Your task to perform on an android device: visit the assistant section in the google photos Image 0: 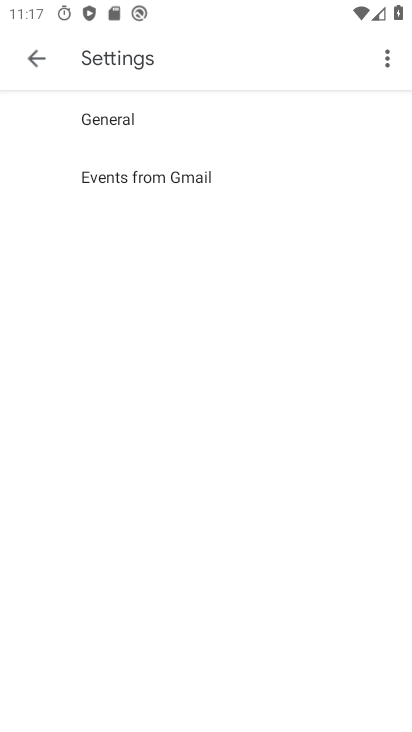
Step 0: press home button
Your task to perform on an android device: visit the assistant section in the google photos Image 1: 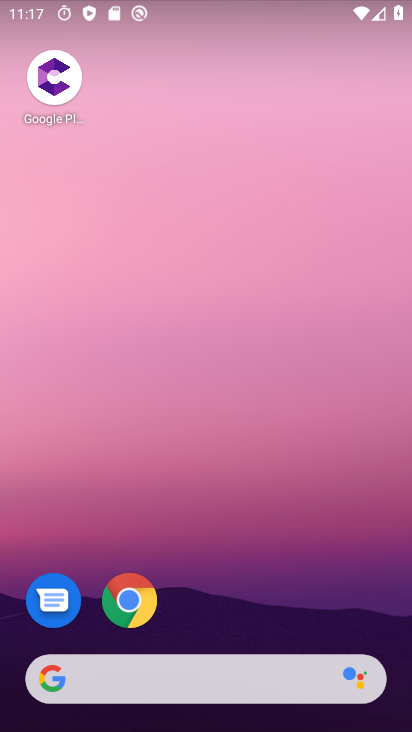
Step 1: drag from (271, 604) to (197, 5)
Your task to perform on an android device: visit the assistant section in the google photos Image 2: 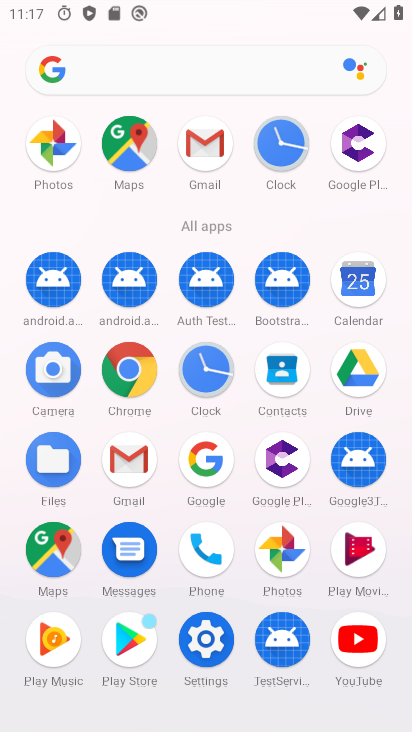
Step 2: drag from (196, 580) to (227, 366)
Your task to perform on an android device: visit the assistant section in the google photos Image 3: 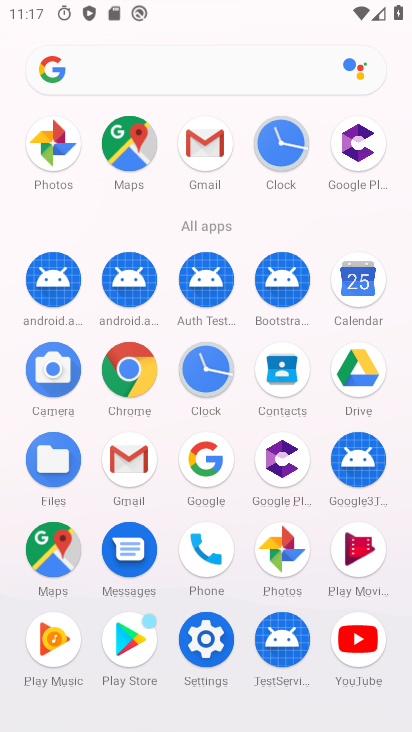
Step 3: click (273, 548)
Your task to perform on an android device: visit the assistant section in the google photos Image 4: 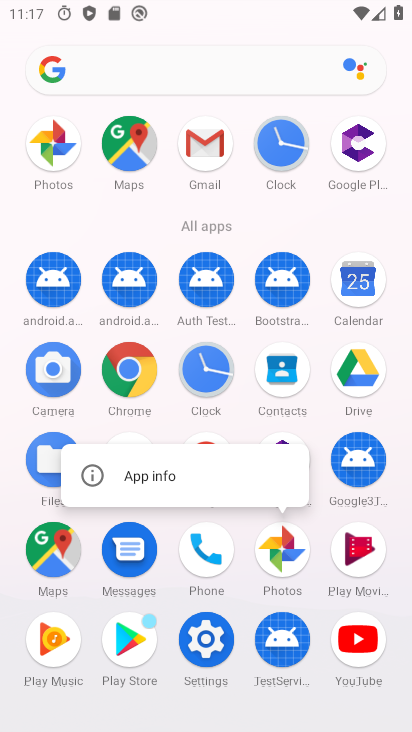
Step 4: click (271, 548)
Your task to perform on an android device: visit the assistant section in the google photos Image 5: 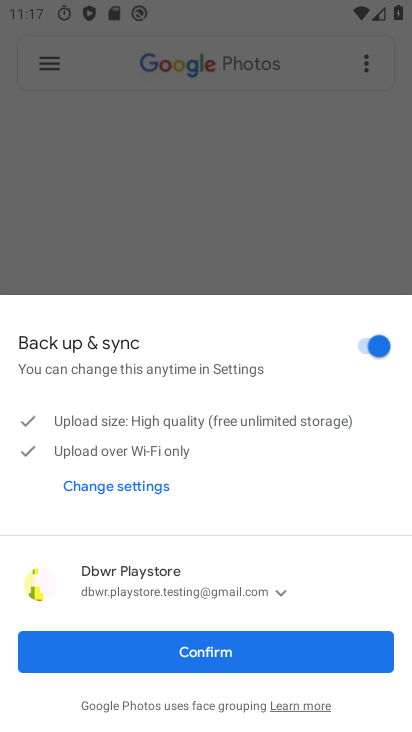
Step 5: click (238, 652)
Your task to perform on an android device: visit the assistant section in the google photos Image 6: 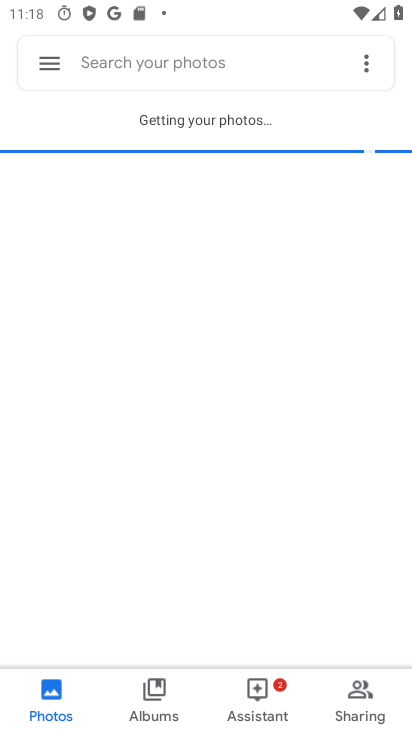
Step 6: click (261, 700)
Your task to perform on an android device: visit the assistant section in the google photos Image 7: 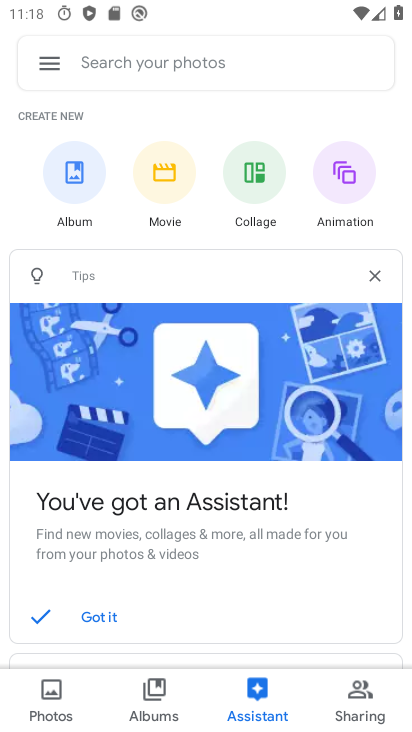
Step 7: task complete